Your task to perform on an android device: turn on data saver in the chrome app Image 0: 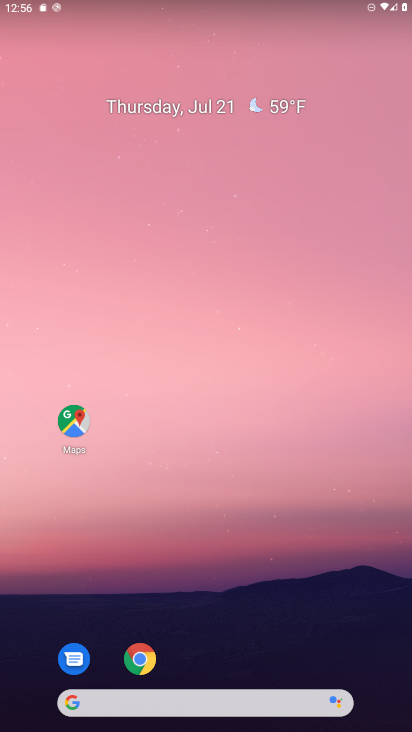
Step 0: press home button
Your task to perform on an android device: turn on data saver in the chrome app Image 1: 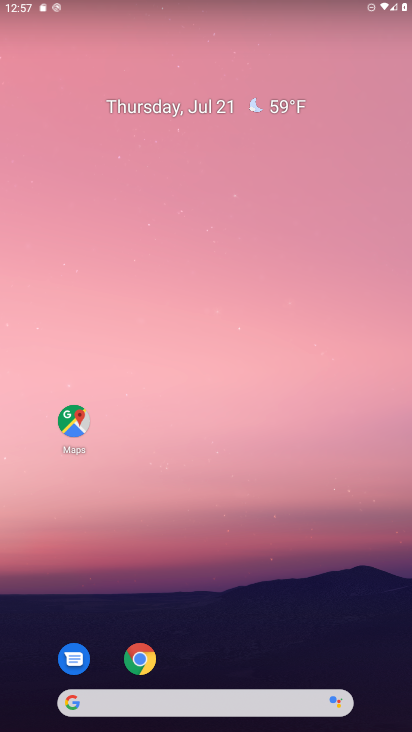
Step 1: click (145, 664)
Your task to perform on an android device: turn on data saver in the chrome app Image 2: 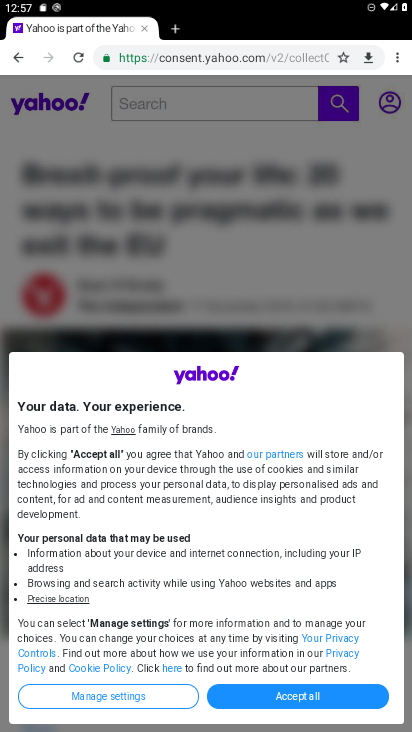
Step 2: click (394, 58)
Your task to perform on an android device: turn on data saver in the chrome app Image 3: 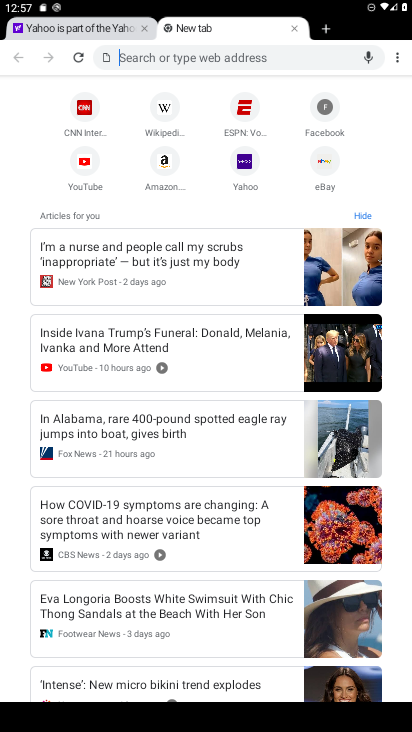
Step 3: click (394, 57)
Your task to perform on an android device: turn on data saver in the chrome app Image 4: 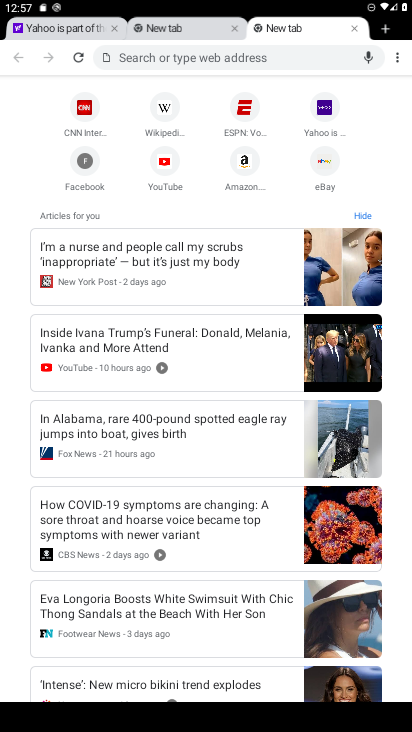
Step 4: click (394, 57)
Your task to perform on an android device: turn on data saver in the chrome app Image 5: 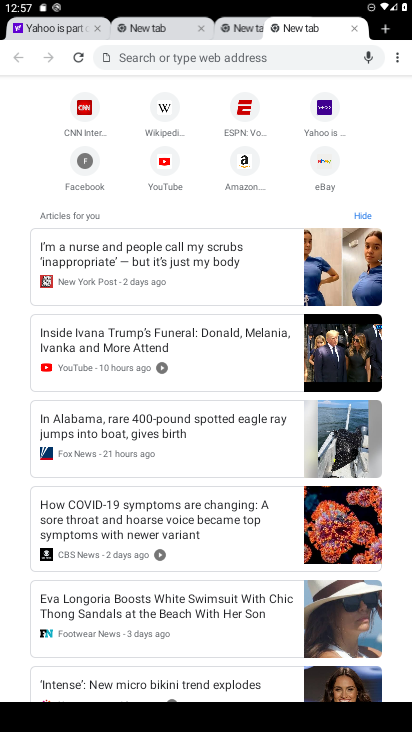
Step 5: click (357, 26)
Your task to perform on an android device: turn on data saver in the chrome app Image 6: 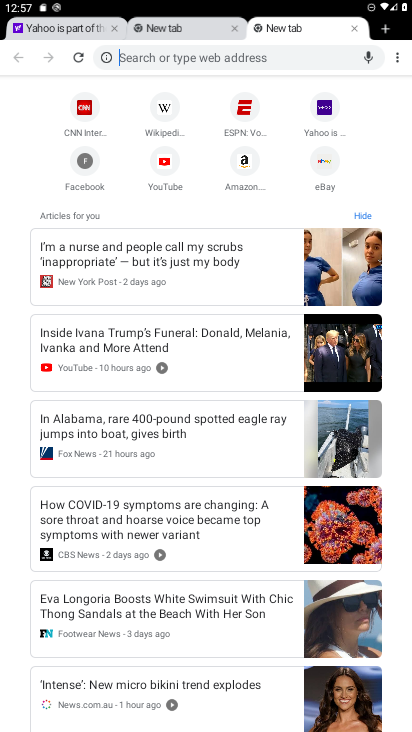
Step 6: click (353, 27)
Your task to perform on an android device: turn on data saver in the chrome app Image 7: 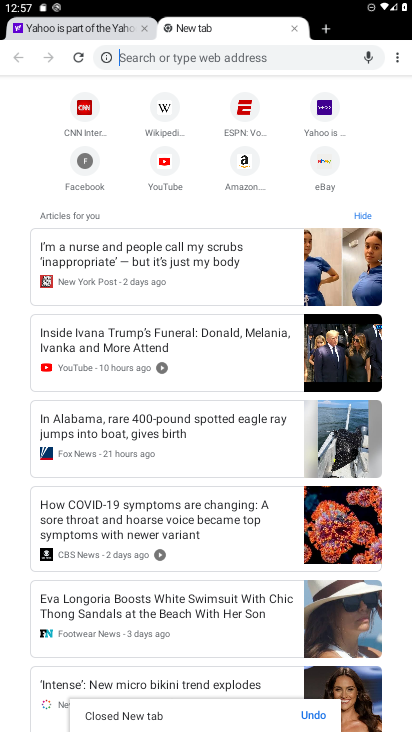
Step 7: click (392, 53)
Your task to perform on an android device: turn on data saver in the chrome app Image 8: 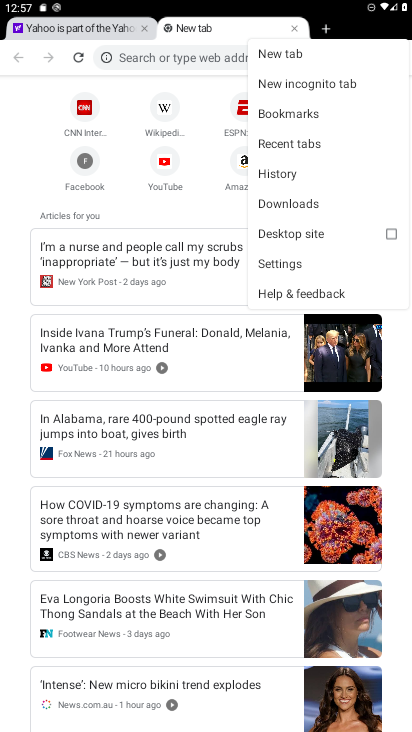
Step 8: click (279, 266)
Your task to perform on an android device: turn on data saver in the chrome app Image 9: 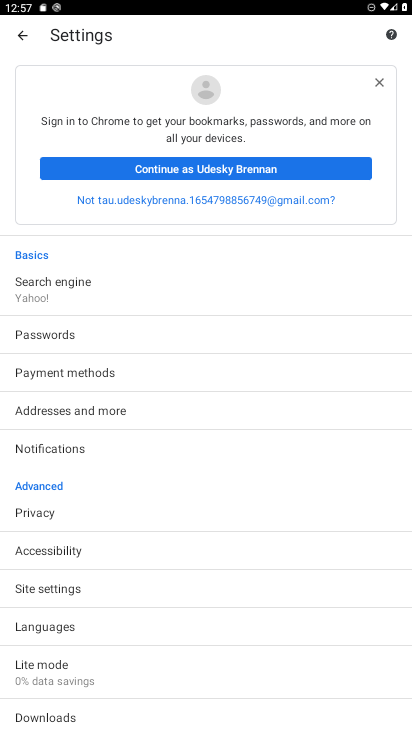
Step 9: drag from (26, 498) to (155, 262)
Your task to perform on an android device: turn on data saver in the chrome app Image 10: 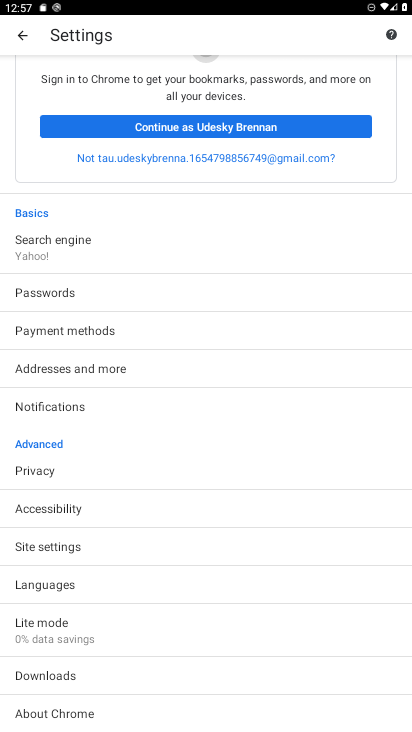
Step 10: click (112, 626)
Your task to perform on an android device: turn on data saver in the chrome app Image 11: 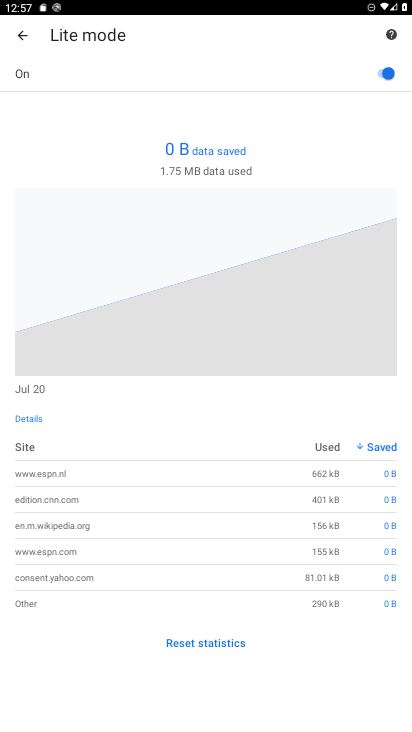
Step 11: task complete